Your task to perform on an android device: Open battery settings Image 0: 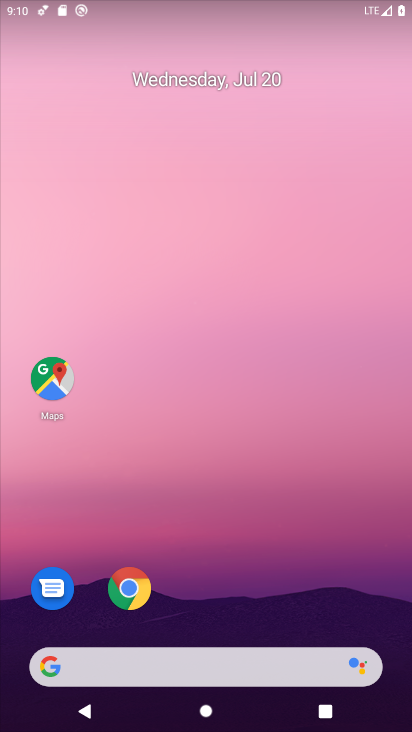
Step 0: press home button
Your task to perform on an android device: Open battery settings Image 1: 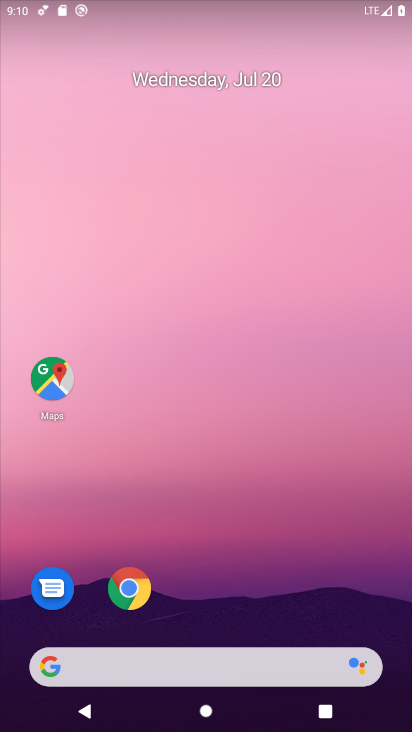
Step 1: drag from (214, 623) to (266, 0)
Your task to perform on an android device: Open battery settings Image 2: 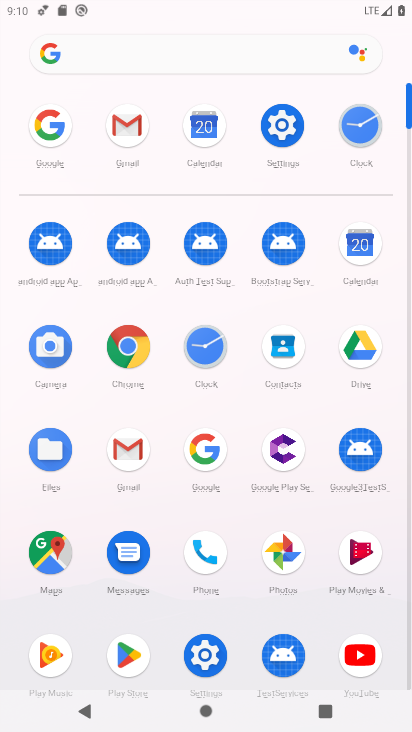
Step 2: click (202, 649)
Your task to perform on an android device: Open battery settings Image 3: 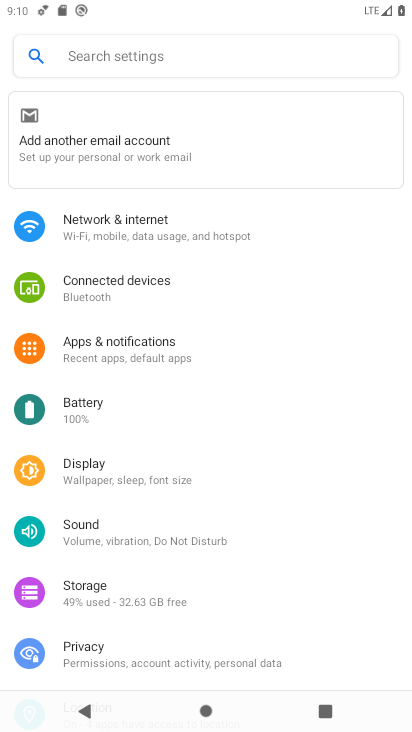
Step 3: click (111, 404)
Your task to perform on an android device: Open battery settings Image 4: 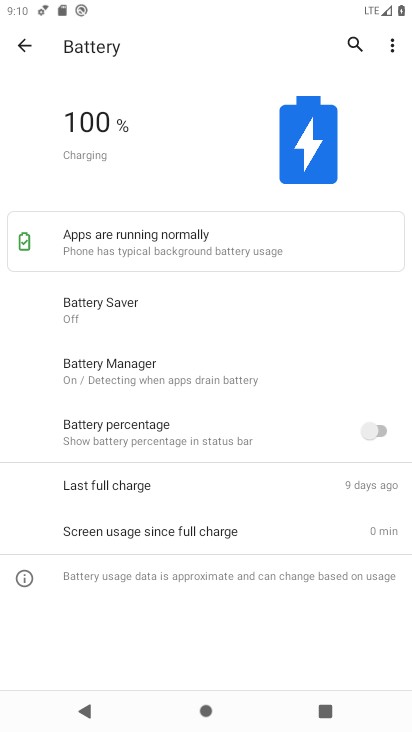
Step 4: task complete